Your task to perform on an android device: Open privacy settings Image 0: 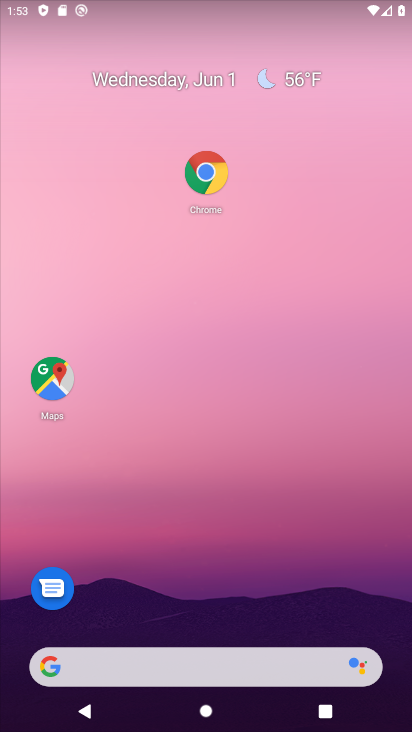
Step 0: click (210, 177)
Your task to perform on an android device: Open privacy settings Image 1: 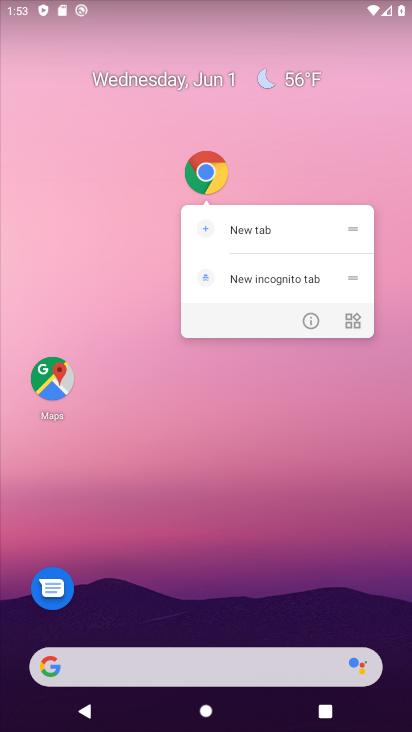
Step 1: click (211, 174)
Your task to perform on an android device: Open privacy settings Image 2: 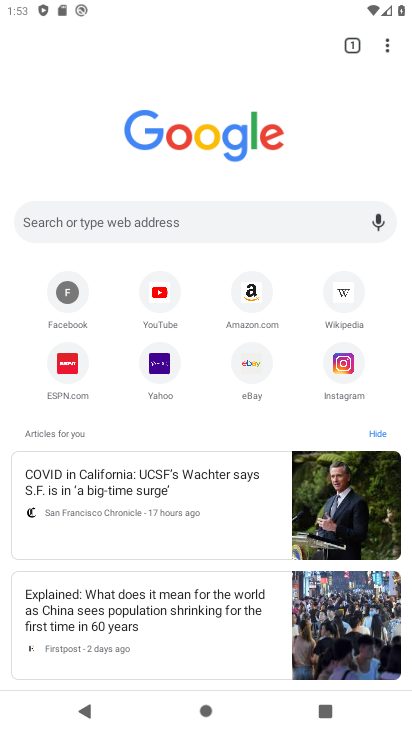
Step 2: click (380, 46)
Your task to perform on an android device: Open privacy settings Image 3: 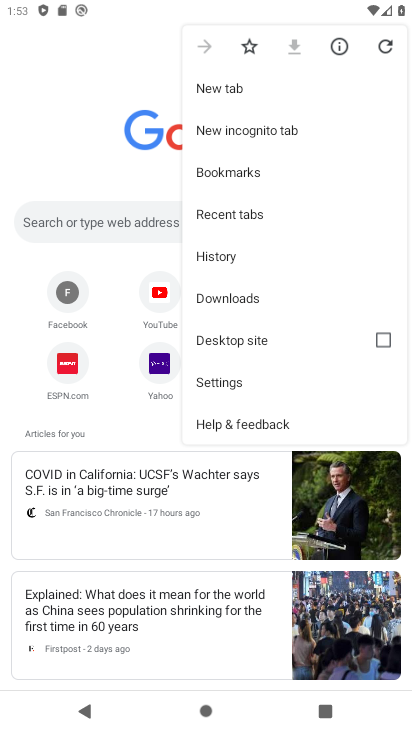
Step 3: click (246, 382)
Your task to perform on an android device: Open privacy settings Image 4: 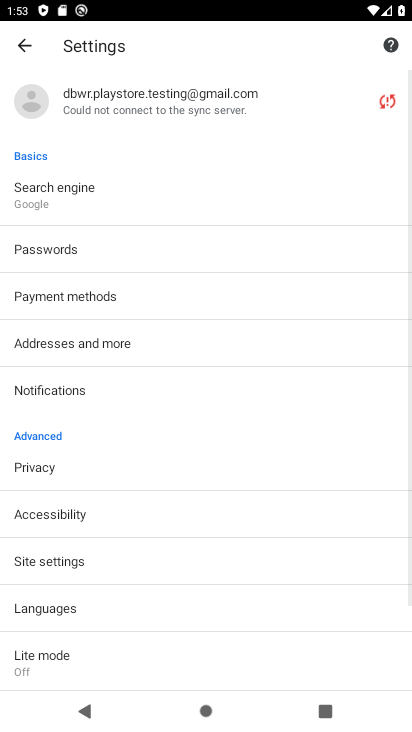
Step 4: click (83, 455)
Your task to perform on an android device: Open privacy settings Image 5: 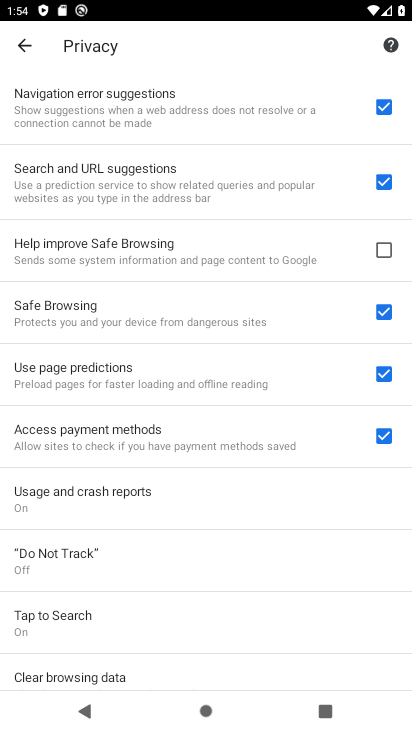
Step 5: task complete